Your task to perform on an android device: Go to sound settings Image 0: 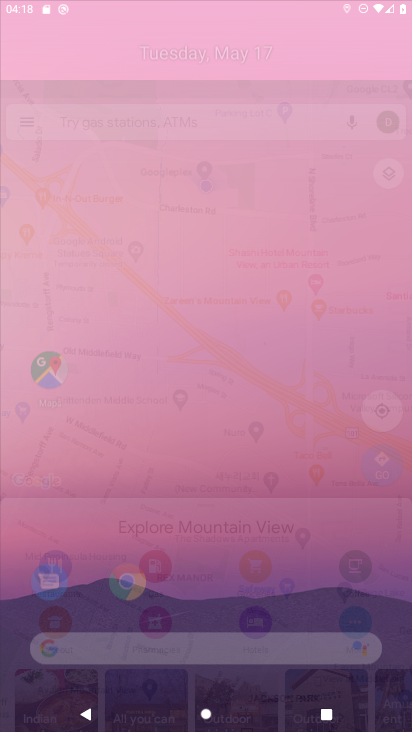
Step 0: drag from (210, 654) to (242, 273)
Your task to perform on an android device: Go to sound settings Image 1: 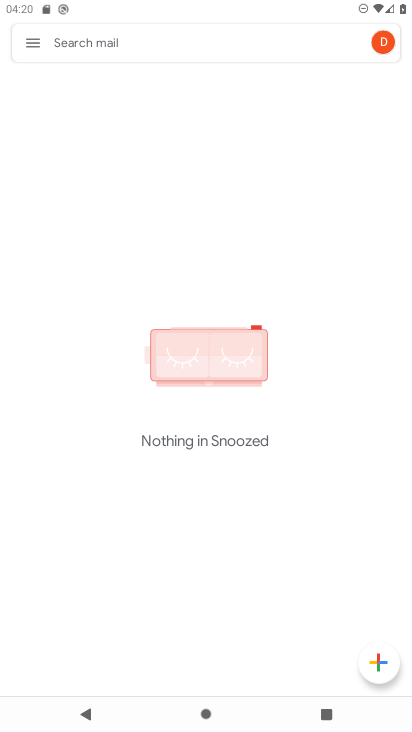
Step 1: press home button
Your task to perform on an android device: Go to sound settings Image 2: 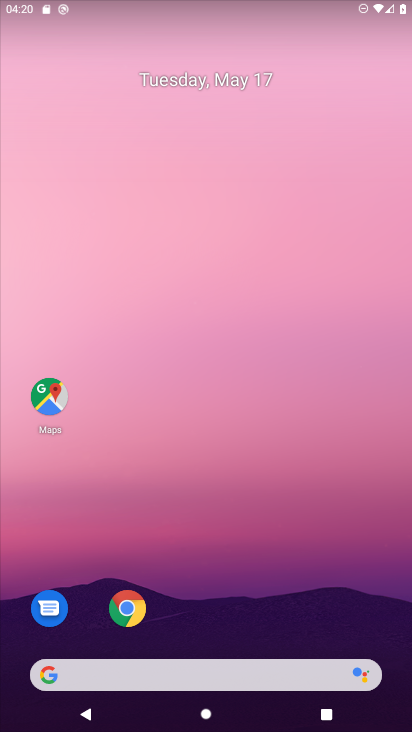
Step 2: drag from (229, 660) to (229, 184)
Your task to perform on an android device: Go to sound settings Image 3: 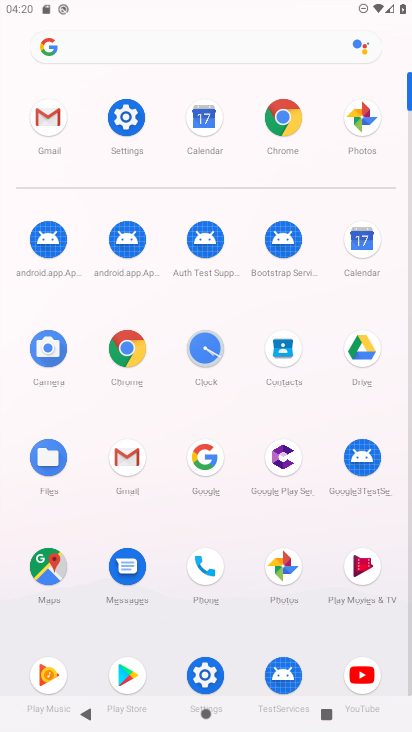
Step 3: click (127, 122)
Your task to perform on an android device: Go to sound settings Image 4: 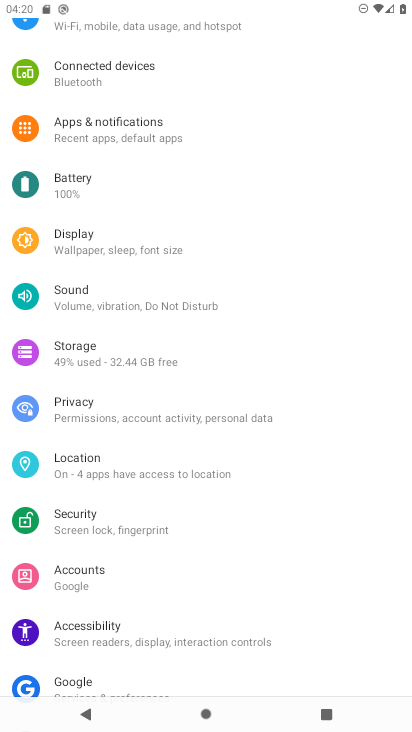
Step 4: click (114, 309)
Your task to perform on an android device: Go to sound settings Image 5: 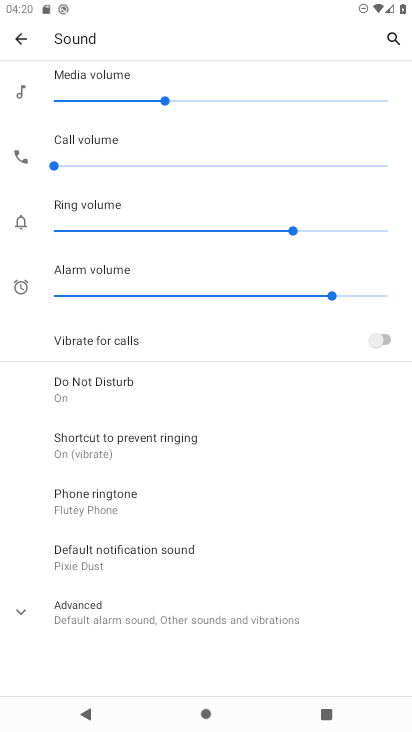
Step 5: drag from (178, 609) to (228, 141)
Your task to perform on an android device: Go to sound settings Image 6: 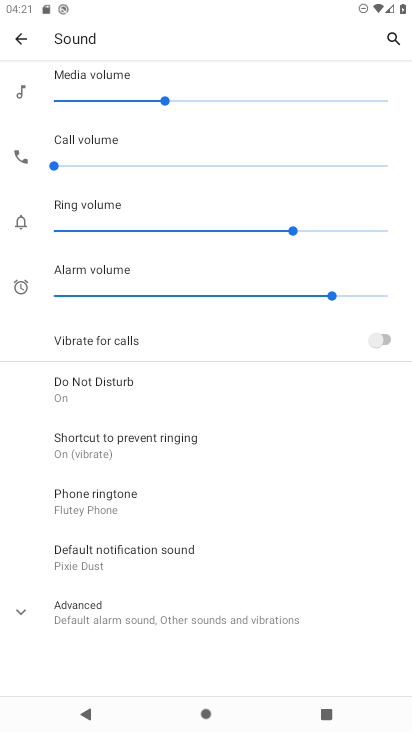
Step 6: click (89, 603)
Your task to perform on an android device: Go to sound settings Image 7: 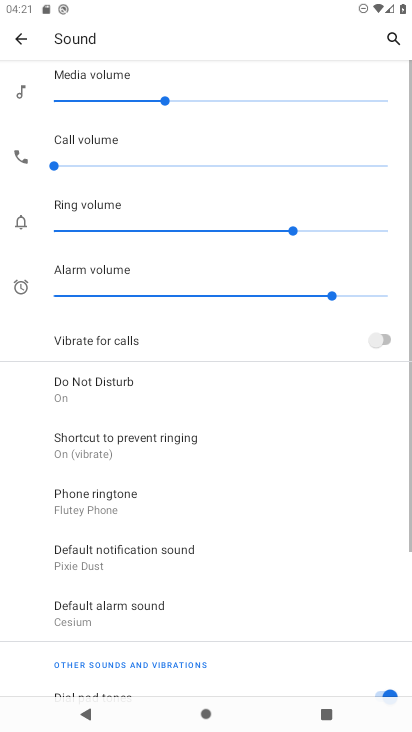
Step 7: task complete